Your task to perform on an android device: WHat are the new products by Samsung on eBay? Image 0: 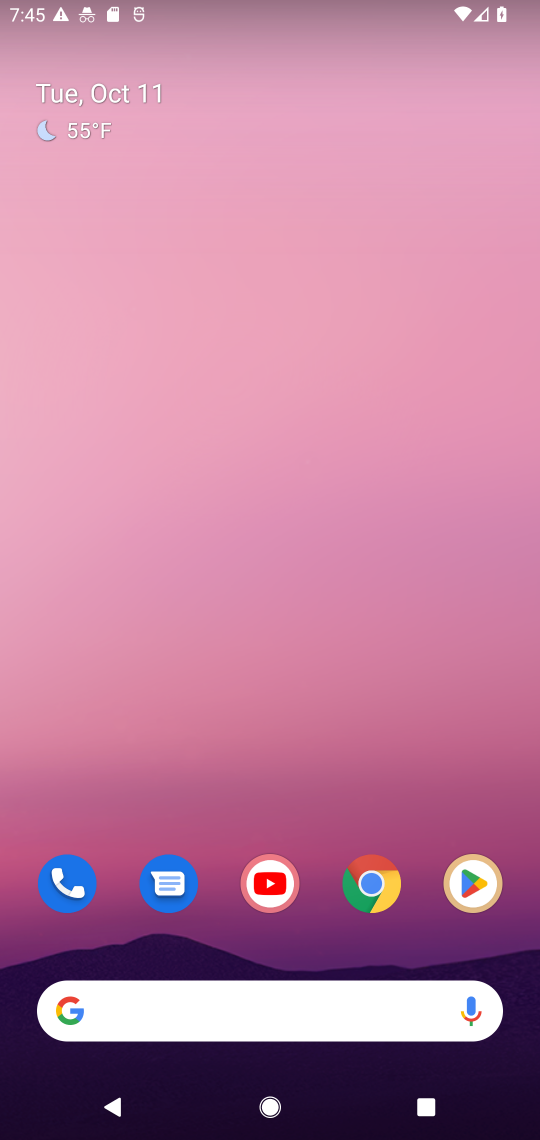
Step 0: drag from (302, 961) to (361, 232)
Your task to perform on an android device: WHat are the new products by Samsung on eBay? Image 1: 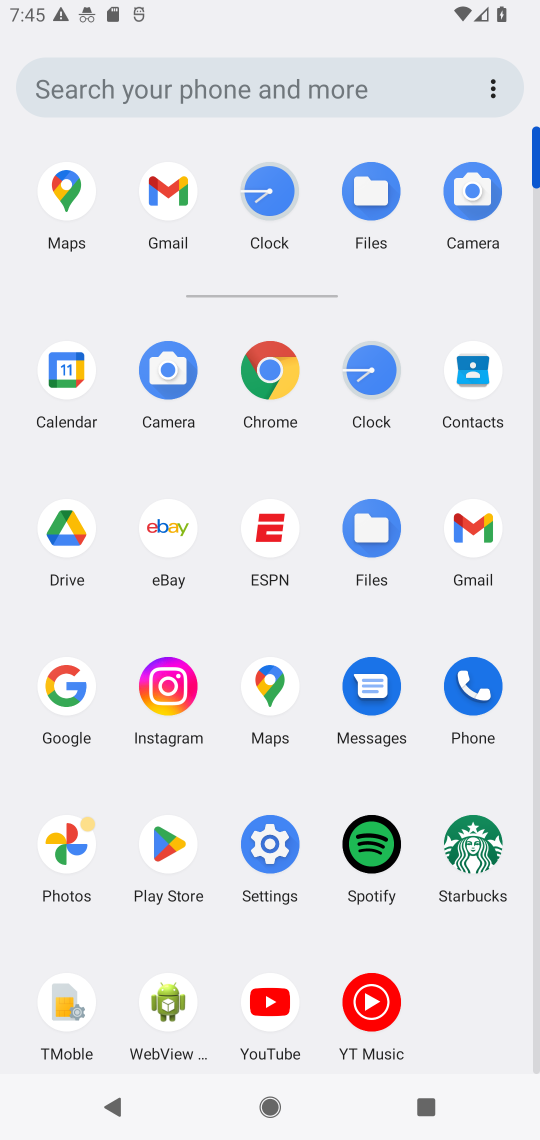
Step 1: click (278, 370)
Your task to perform on an android device: WHat are the new products by Samsung on eBay? Image 2: 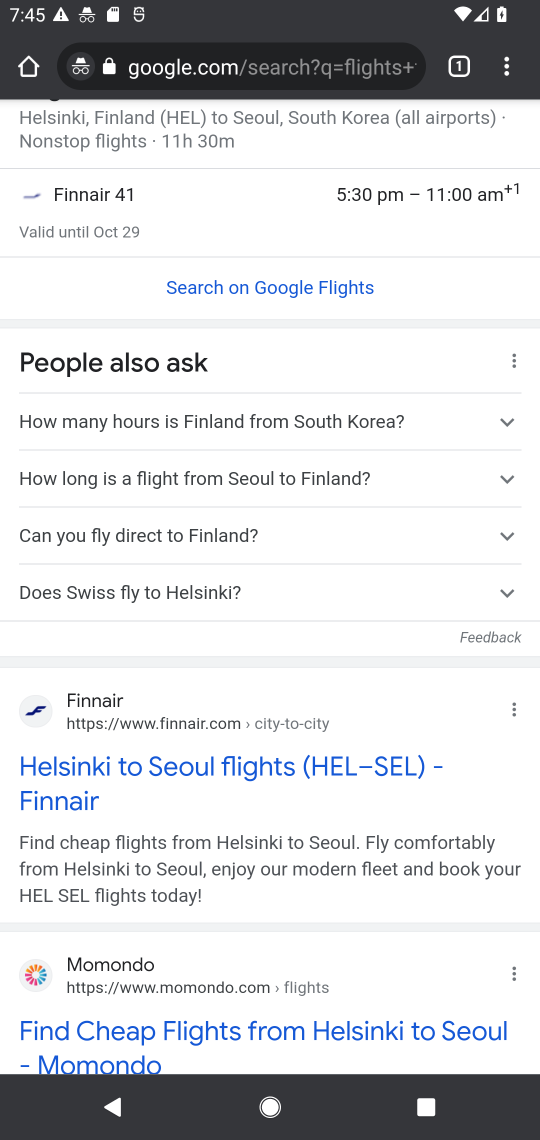
Step 2: click (311, 67)
Your task to perform on an android device: WHat are the new products by Samsung on eBay? Image 3: 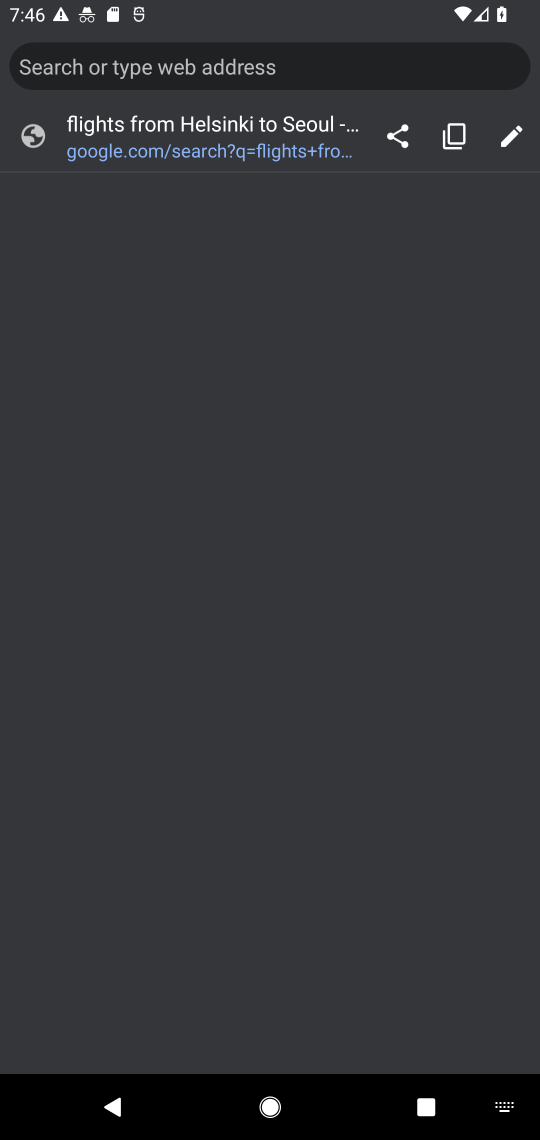
Step 3: type "new products by Samsung on eBay?"
Your task to perform on an android device: WHat are the new products by Samsung on eBay? Image 4: 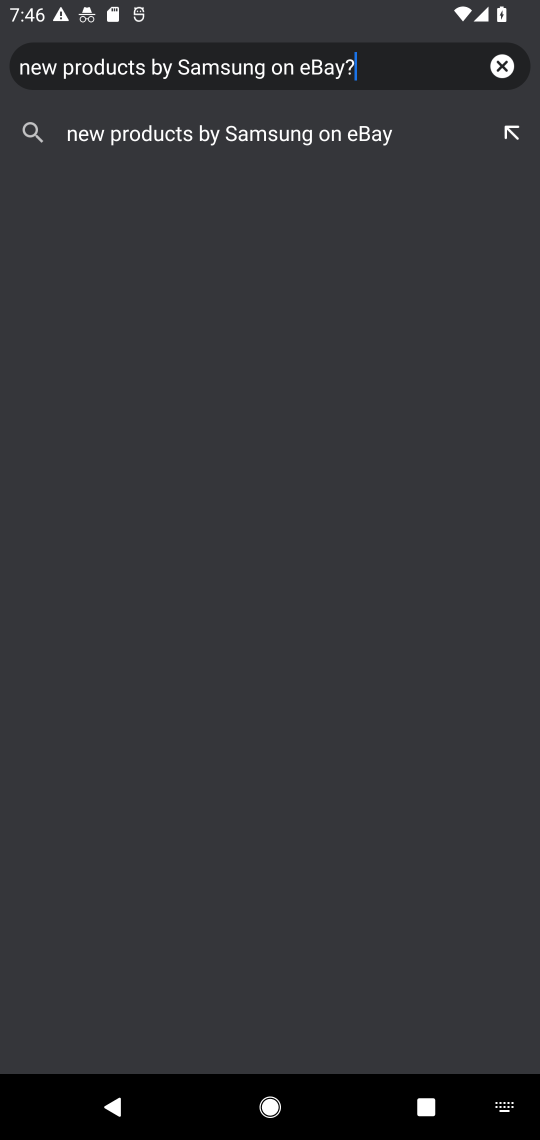
Step 4: press enter
Your task to perform on an android device: WHat are the new products by Samsung on eBay? Image 5: 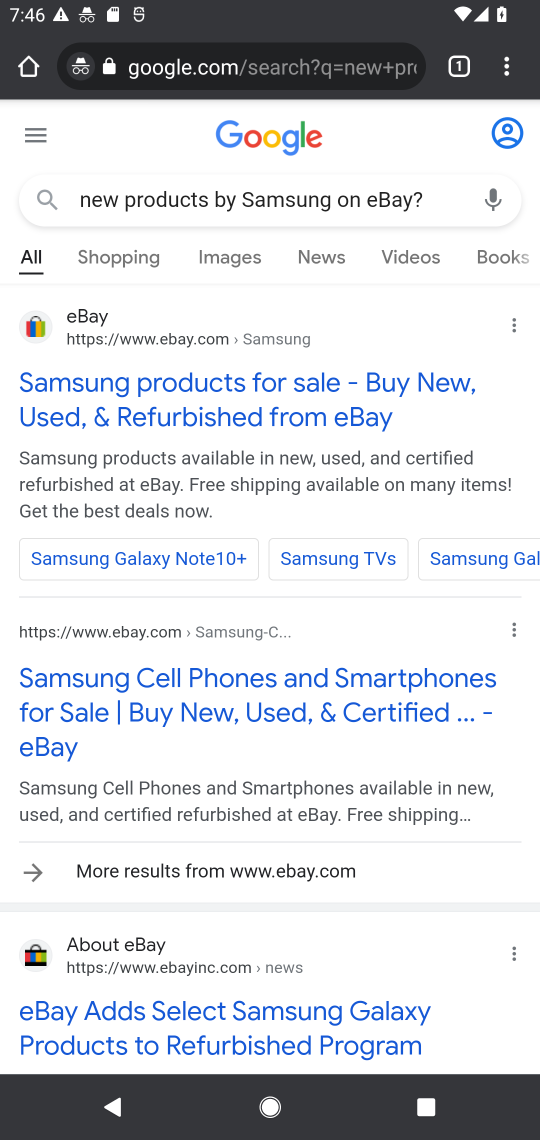
Step 5: click (189, 403)
Your task to perform on an android device: WHat are the new products by Samsung on eBay? Image 6: 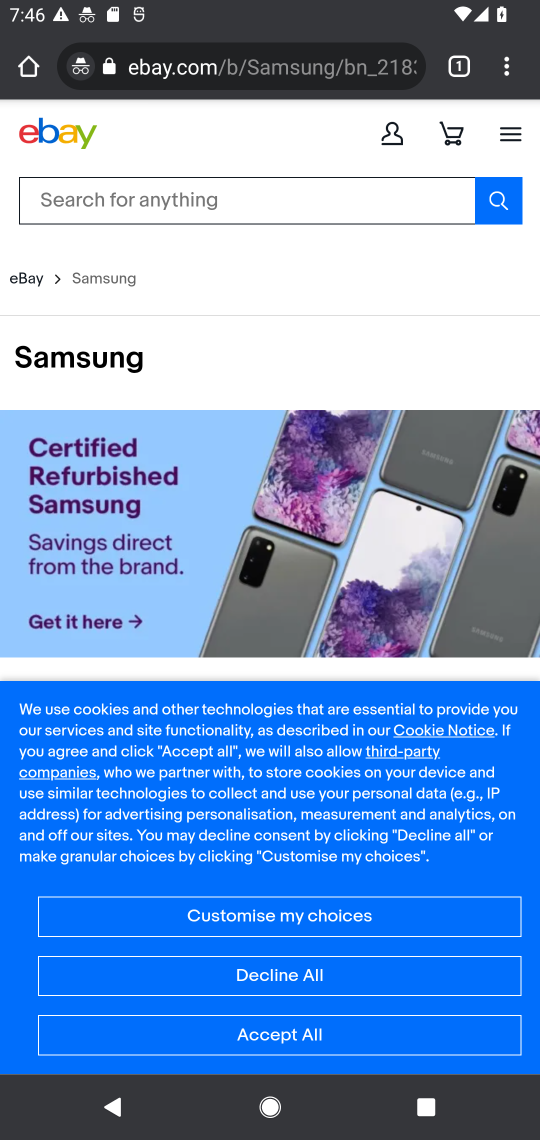
Step 6: task complete